Your task to perform on an android device: Open Google Maps Image 0: 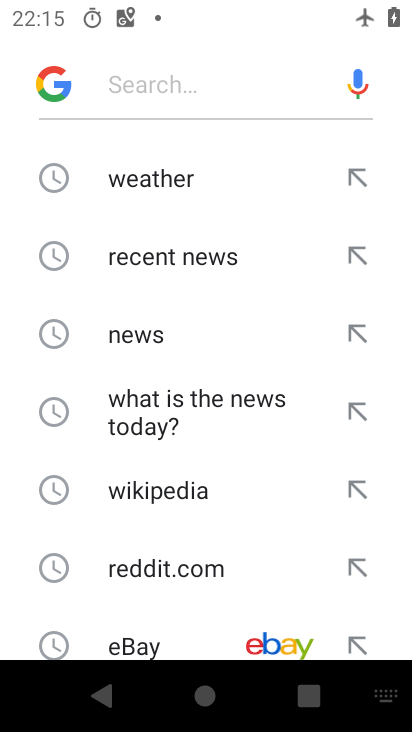
Step 0: press back button
Your task to perform on an android device: Open Google Maps Image 1: 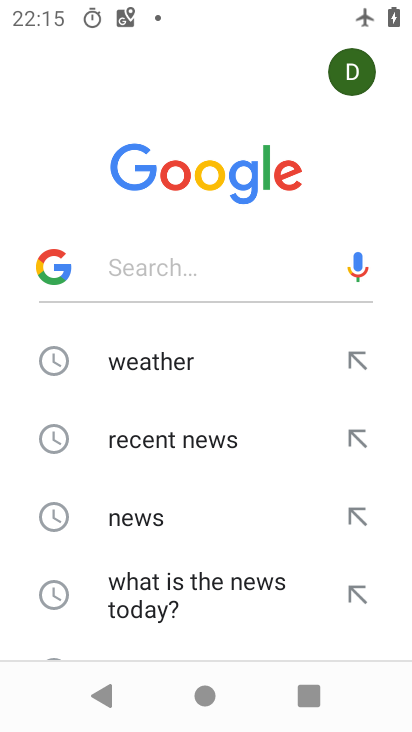
Step 1: press back button
Your task to perform on an android device: Open Google Maps Image 2: 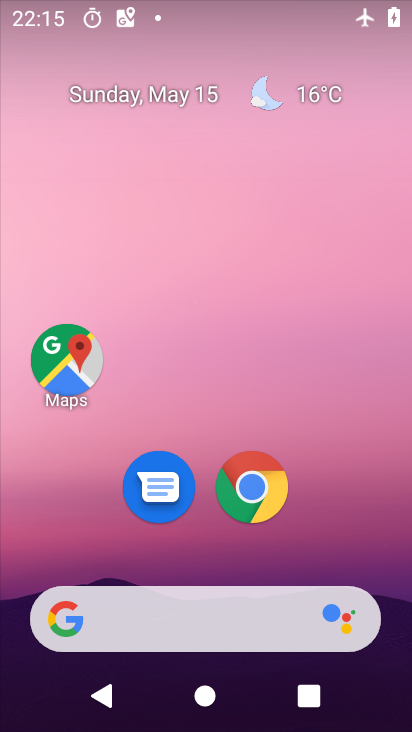
Step 2: click (70, 374)
Your task to perform on an android device: Open Google Maps Image 3: 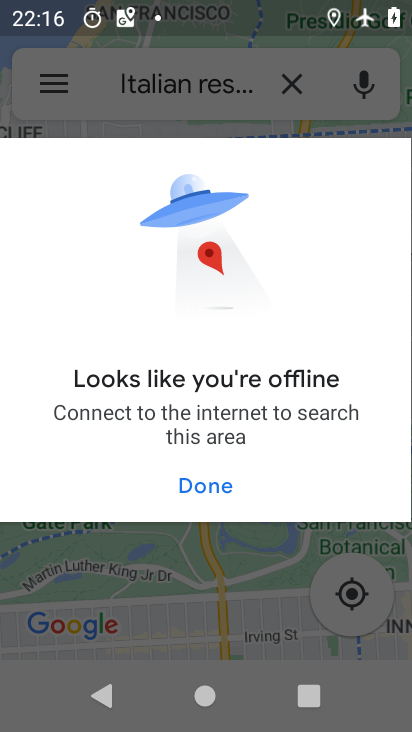
Step 3: task complete